Your task to perform on an android device: Open the web browser Image 0: 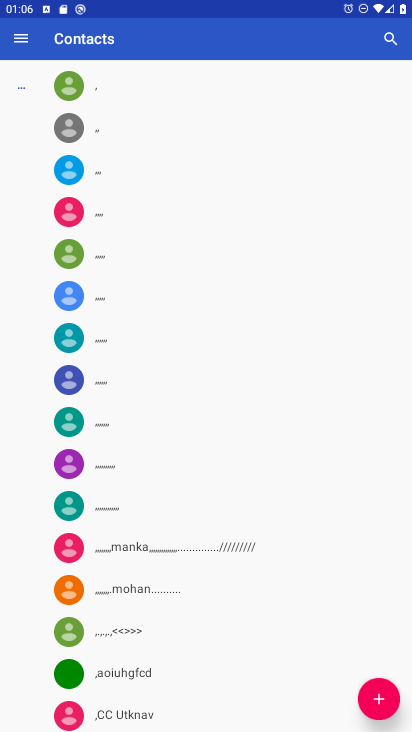
Step 0: press home button
Your task to perform on an android device: Open the web browser Image 1: 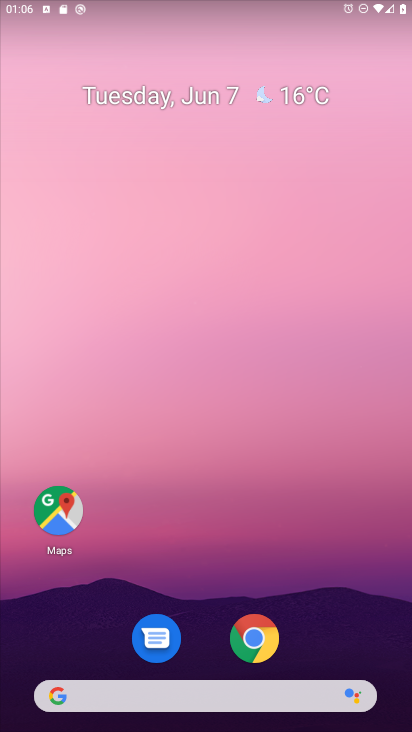
Step 1: drag from (273, 711) to (253, 260)
Your task to perform on an android device: Open the web browser Image 2: 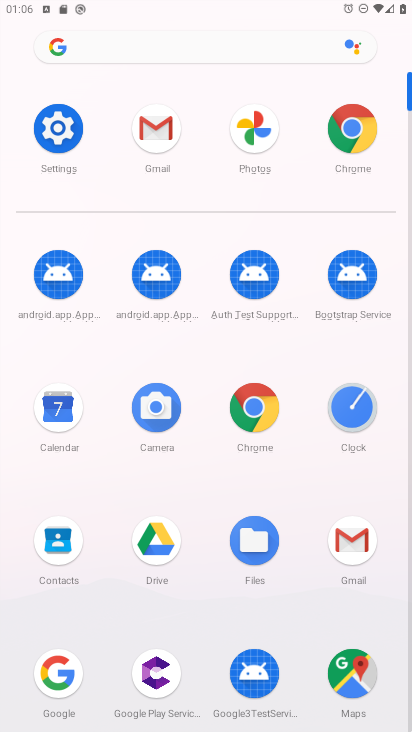
Step 2: click (337, 131)
Your task to perform on an android device: Open the web browser Image 3: 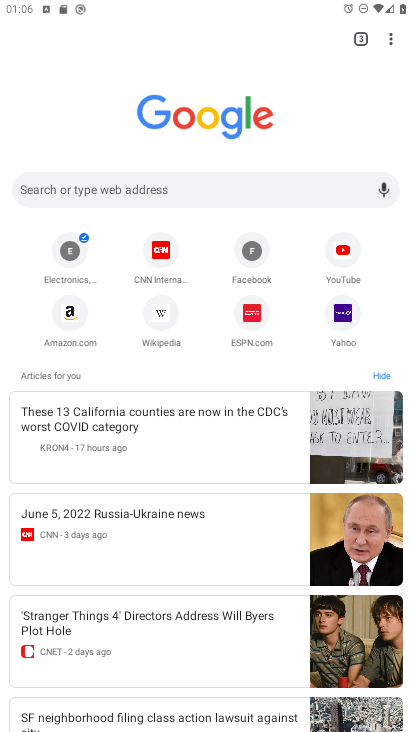
Step 3: click (188, 191)
Your task to perform on an android device: Open the web browser Image 4: 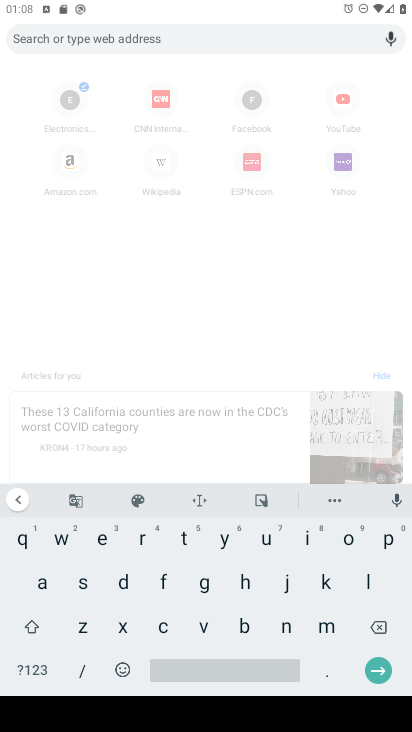
Step 4: task complete